Your task to perform on an android device: turn off picture-in-picture Image 0: 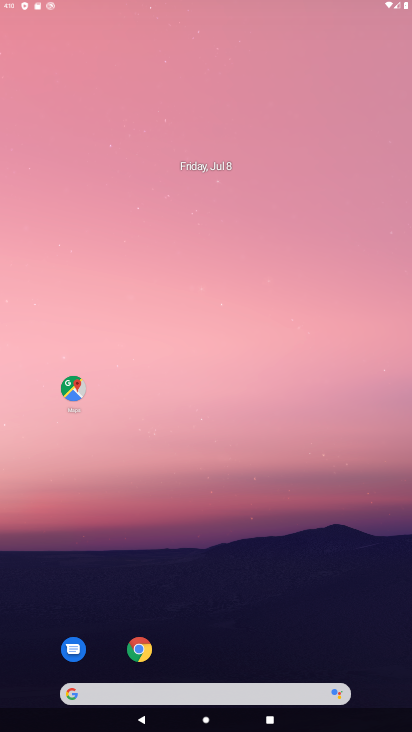
Step 0: drag from (256, 702) to (343, 23)
Your task to perform on an android device: turn off picture-in-picture Image 1: 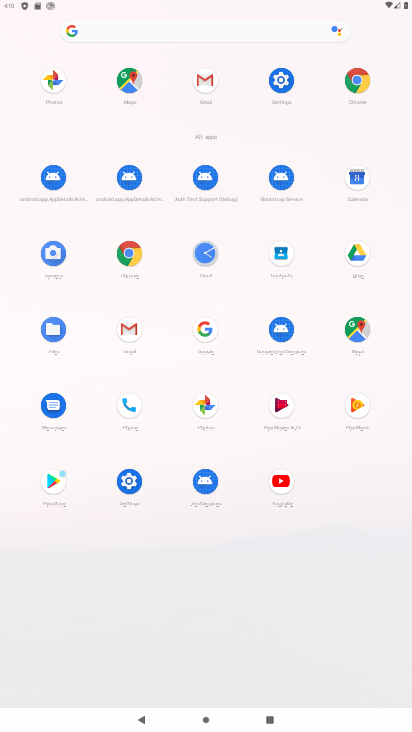
Step 1: click (132, 488)
Your task to perform on an android device: turn off picture-in-picture Image 2: 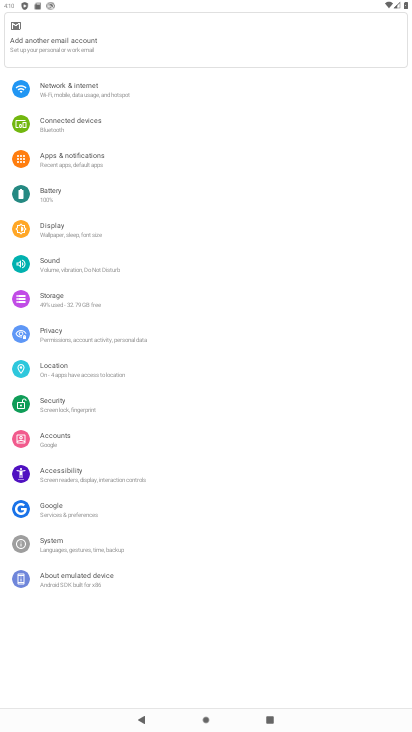
Step 2: click (80, 168)
Your task to perform on an android device: turn off picture-in-picture Image 3: 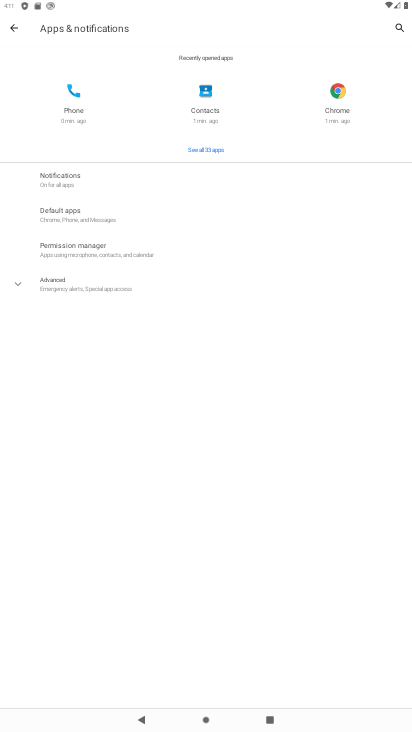
Step 3: click (84, 289)
Your task to perform on an android device: turn off picture-in-picture Image 4: 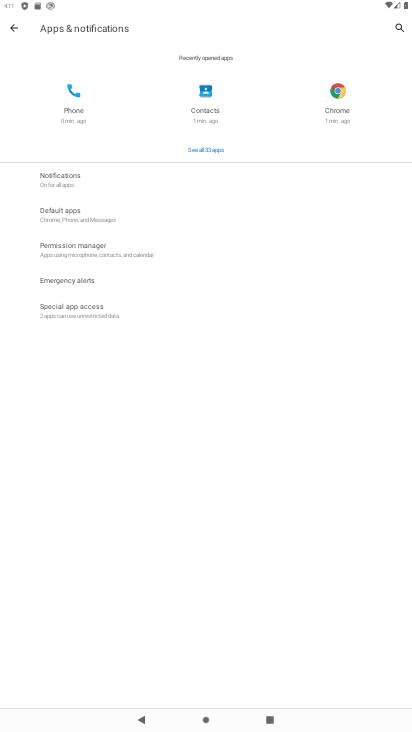
Step 4: click (102, 306)
Your task to perform on an android device: turn off picture-in-picture Image 5: 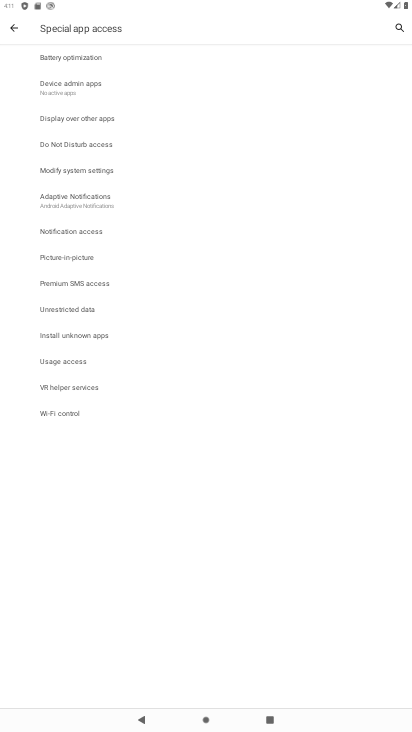
Step 5: click (97, 258)
Your task to perform on an android device: turn off picture-in-picture Image 6: 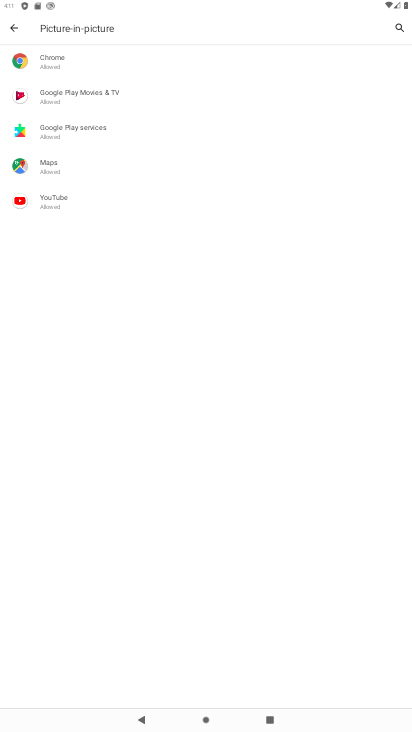
Step 6: click (281, 63)
Your task to perform on an android device: turn off picture-in-picture Image 7: 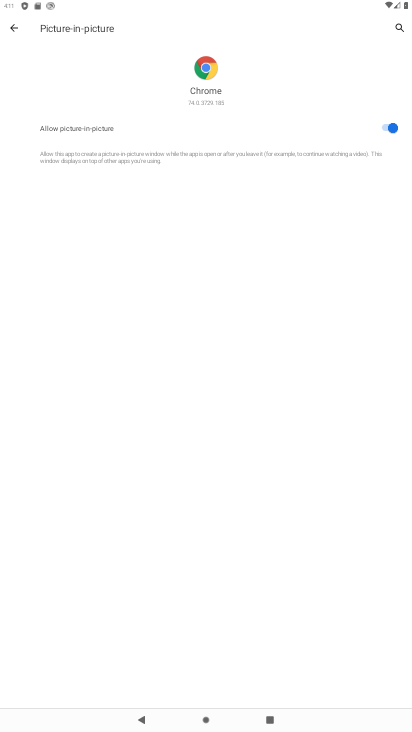
Step 7: click (381, 128)
Your task to perform on an android device: turn off picture-in-picture Image 8: 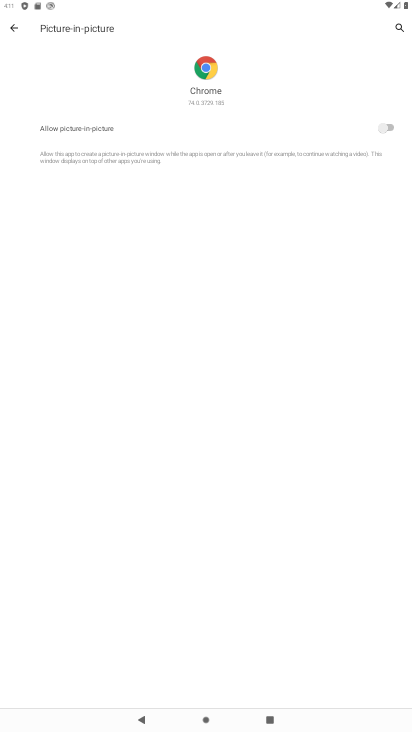
Step 8: press back button
Your task to perform on an android device: turn off picture-in-picture Image 9: 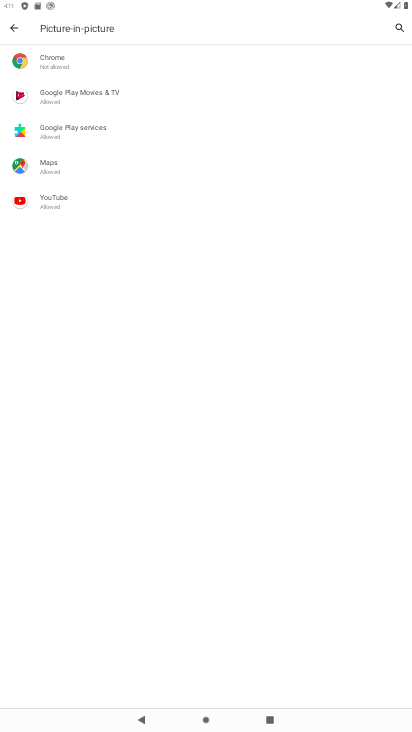
Step 9: click (55, 87)
Your task to perform on an android device: turn off picture-in-picture Image 10: 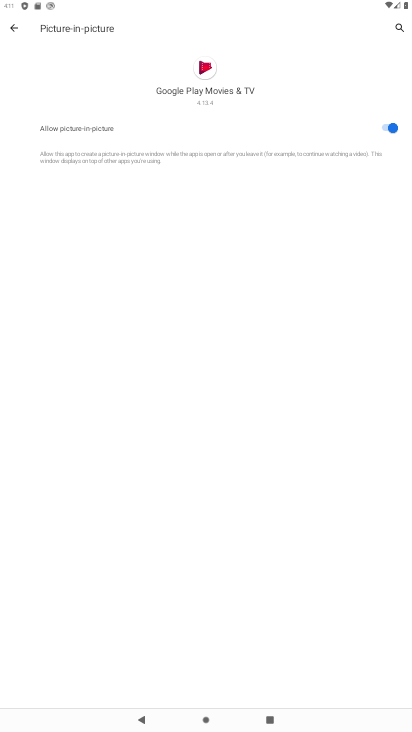
Step 10: click (388, 127)
Your task to perform on an android device: turn off picture-in-picture Image 11: 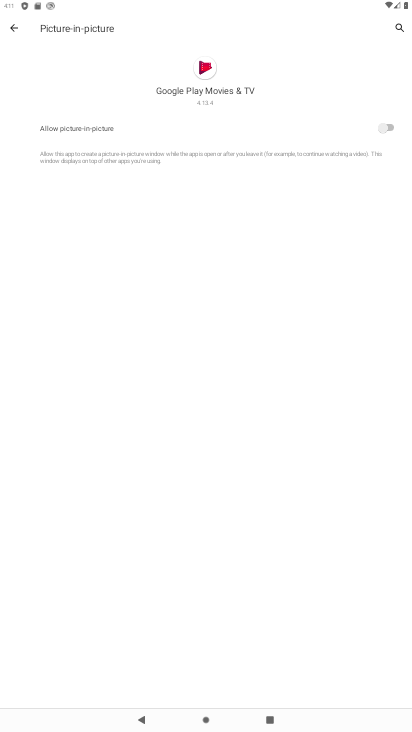
Step 11: press back button
Your task to perform on an android device: turn off picture-in-picture Image 12: 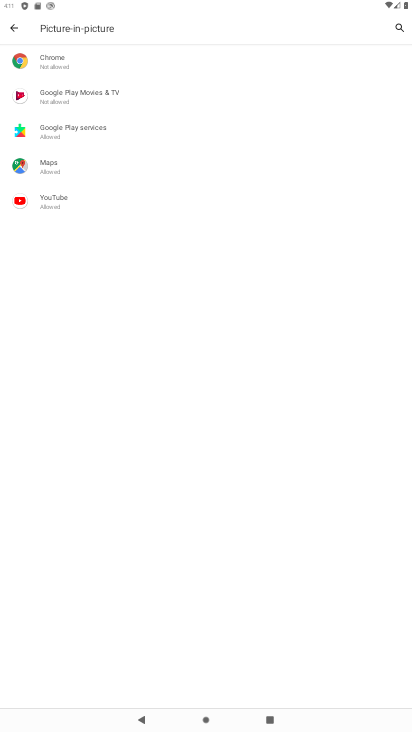
Step 12: click (89, 133)
Your task to perform on an android device: turn off picture-in-picture Image 13: 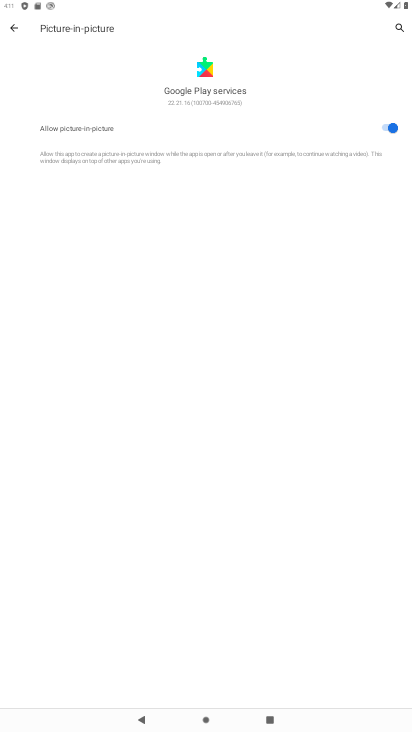
Step 13: click (390, 126)
Your task to perform on an android device: turn off picture-in-picture Image 14: 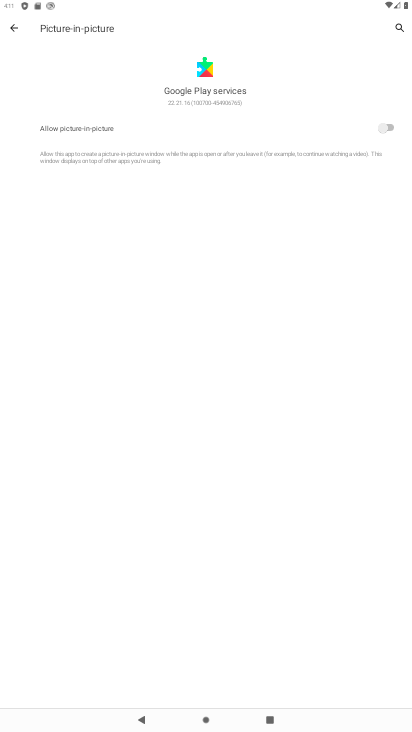
Step 14: press back button
Your task to perform on an android device: turn off picture-in-picture Image 15: 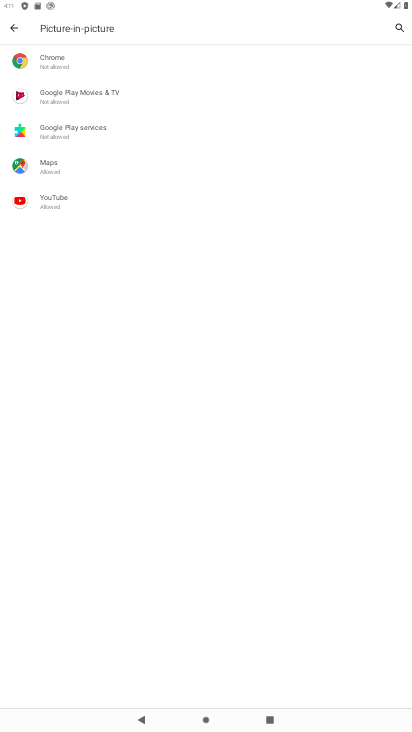
Step 15: click (63, 158)
Your task to perform on an android device: turn off picture-in-picture Image 16: 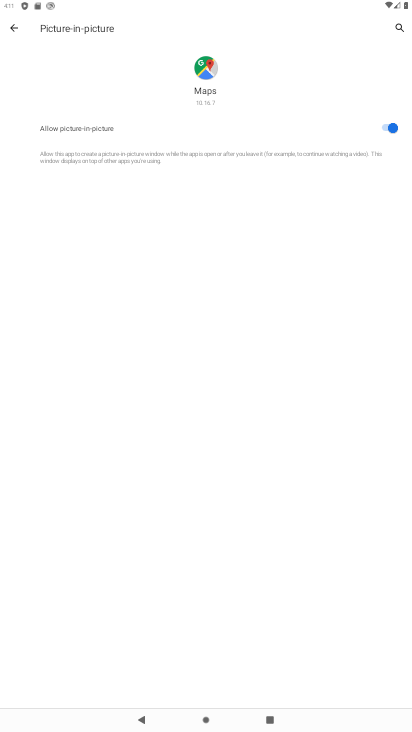
Step 16: click (388, 120)
Your task to perform on an android device: turn off picture-in-picture Image 17: 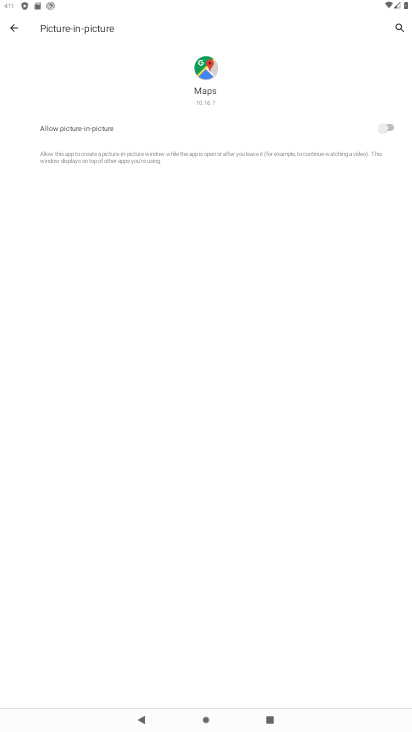
Step 17: press back button
Your task to perform on an android device: turn off picture-in-picture Image 18: 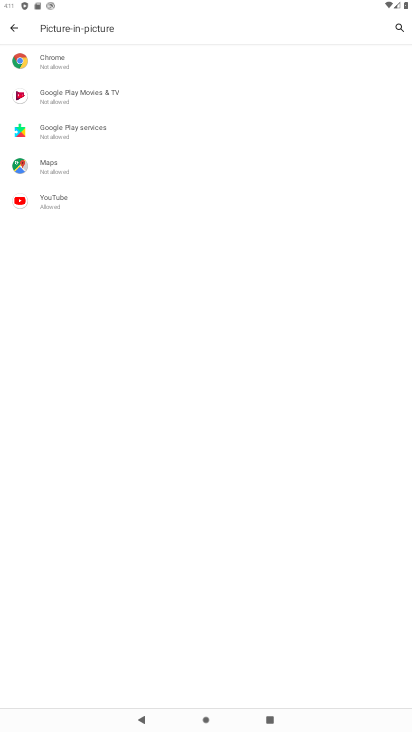
Step 18: click (76, 199)
Your task to perform on an android device: turn off picture-in-picture Image 19: 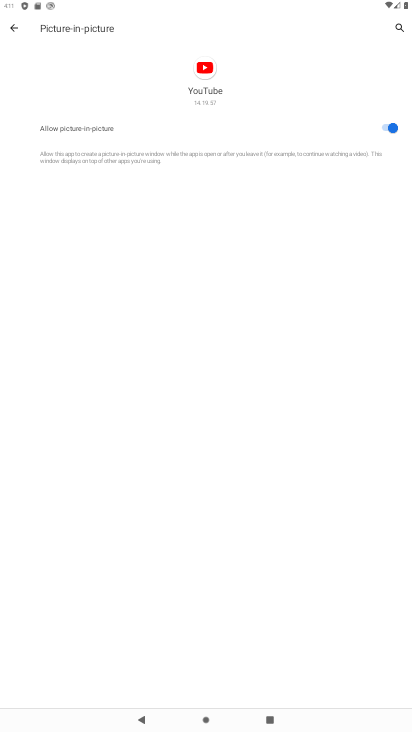
Step 19: click (383, 115)
Your task to perform on an android device: turn off picture-in-picture Image 20: 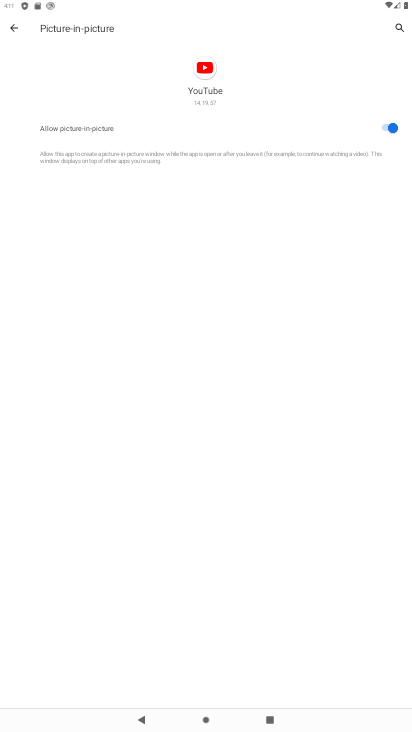
Step 20: click (388, 127)
Your task to perform on an android device: turn off picture-in-picture Image 21: 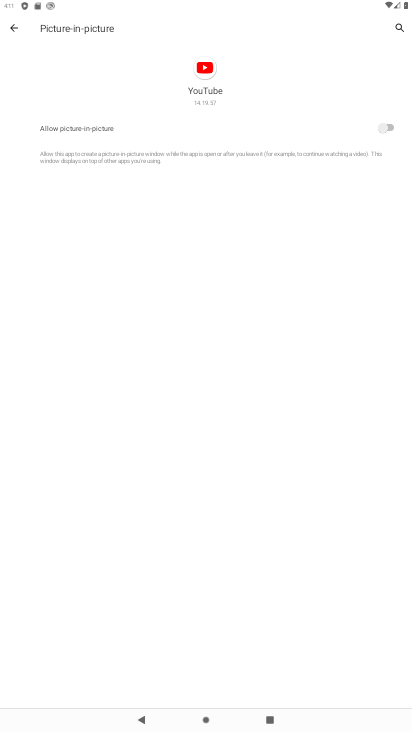
Step 21: task complete